Your task to perform on an android device: Open notification settings Image 0: 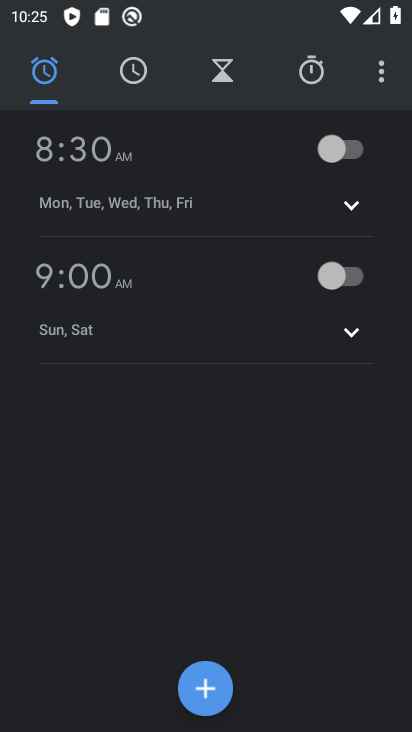
Step 0: press home button
Your task to perform on an android device: Open notification settings Image 1: 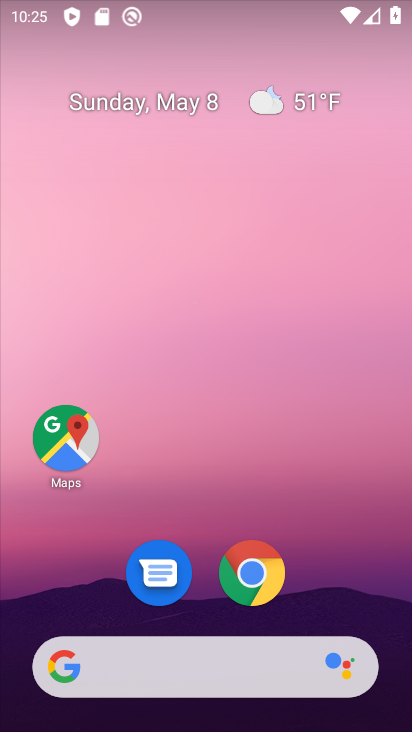
Step 1: drag from (209, 641) to (347, 0)
Your task to perform on an android device: Open notification settings Image 2: 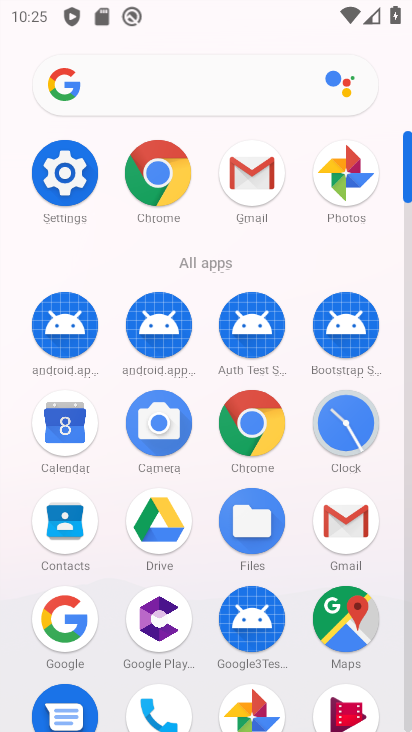
Step 2: click (71, 178)
Your task to perform on an android device: Open notification settings Image 3: 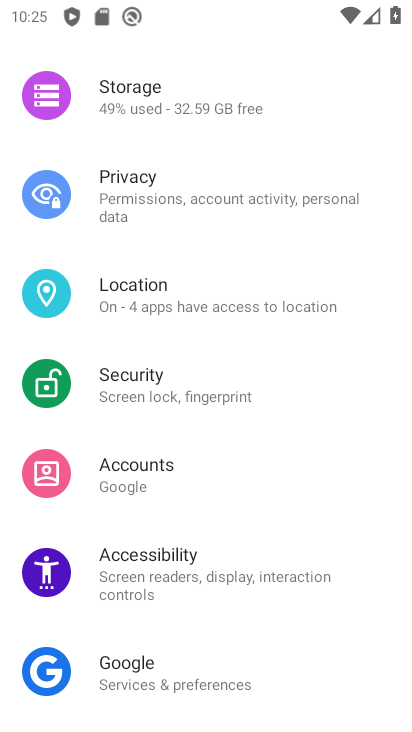
Step 3: drag from (246, 85) to (275, 434)
Your task to perform on an android device: Open notification settings Image 4: 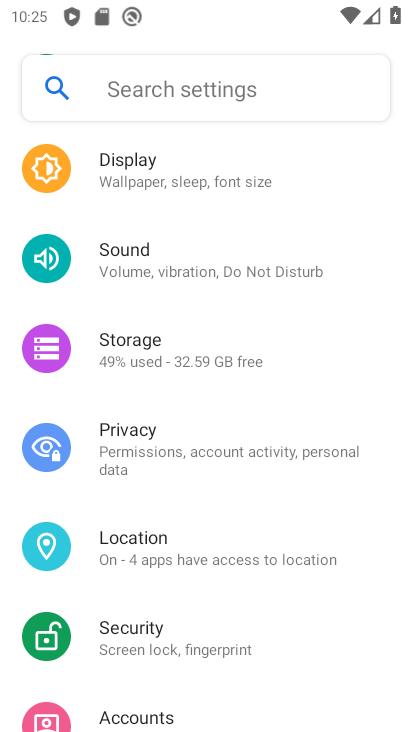
Step 4: drag from (266, 164) to (315, 521)
Your task to perform on an android device: Open notification settings Image 5: 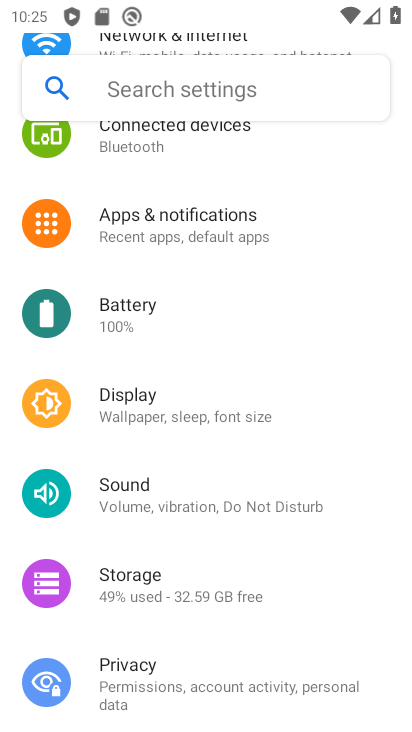
Step 5: click (218, 212)
Your task to perform on an android device: Open notification settings Image 6: 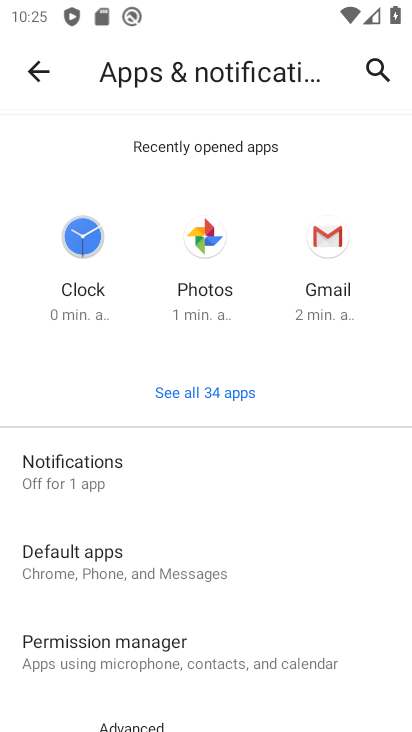
Step 6: drag from (217, 695) to (238, 274)
Your task to perform on an android device: Open notification settings Image 7: 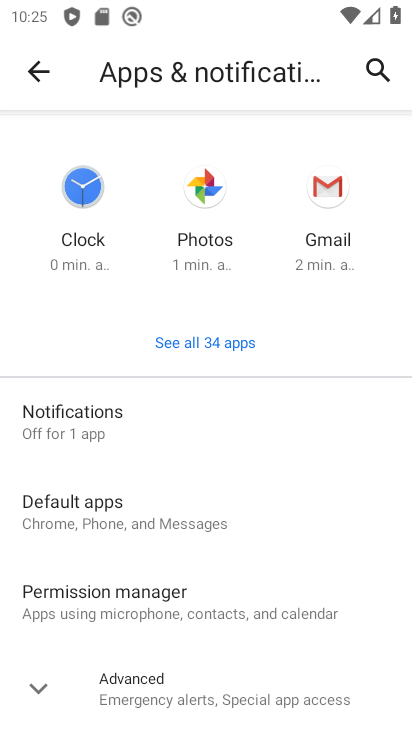
Step 7: click (163, 699)
Your task to perform on an android device: Open notification settings Image 8: 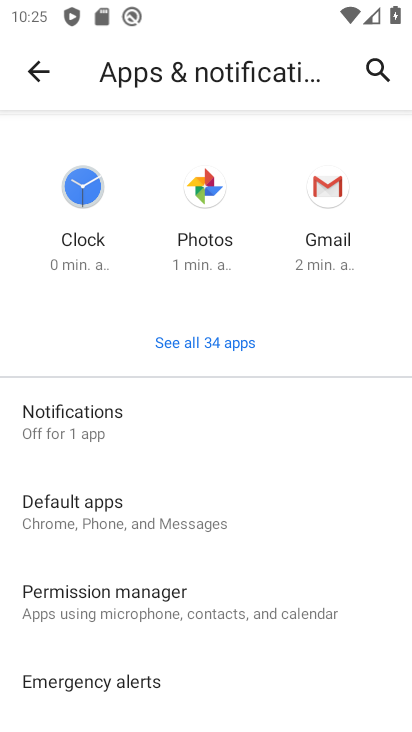
Step 8: task complete